Your task to perform on an android device: Go to network settings Image 0: 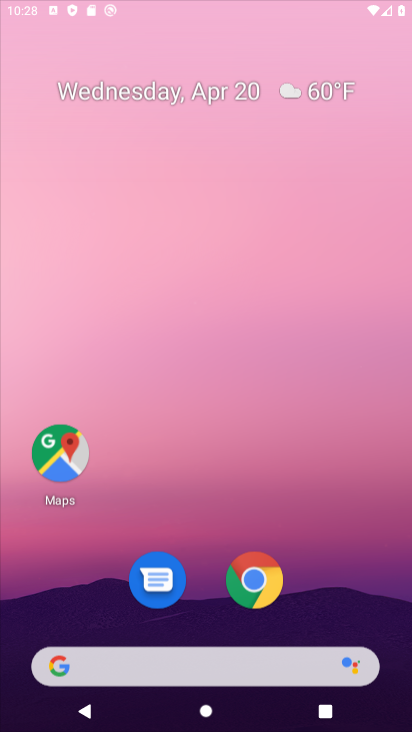
Step 0: drag from (246, 661) to (257, 125)
Your task to perform on an android device: Go to network settings Image 1: 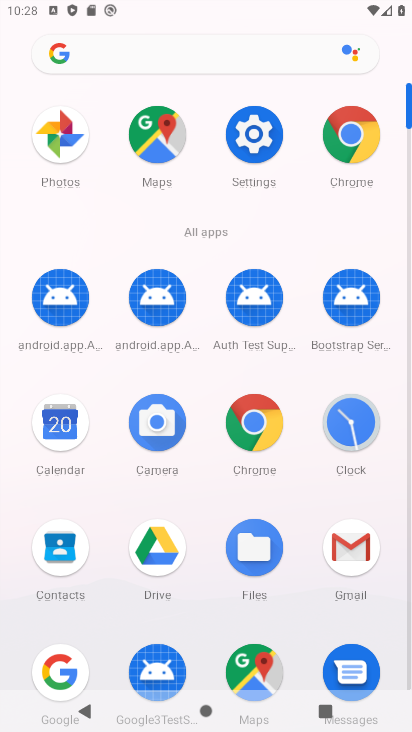
Step 1: click (257, 149)
Your task to perform on an android device: Go to network settings Image 2: 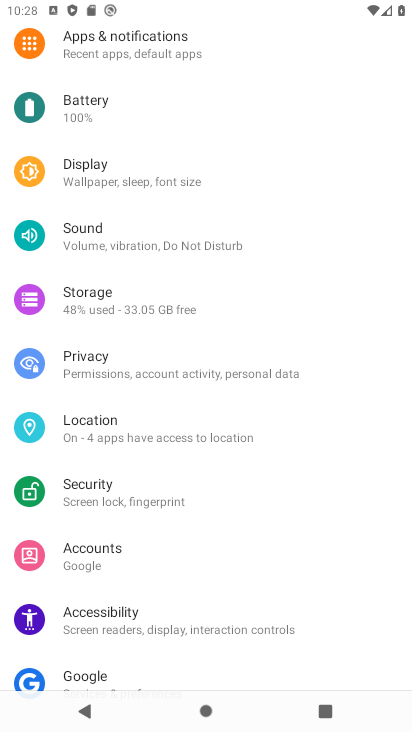
Step 2: drag from (165, 83) to (139, 491)
Your task to perform on an android device: Go to network settings Image 3: 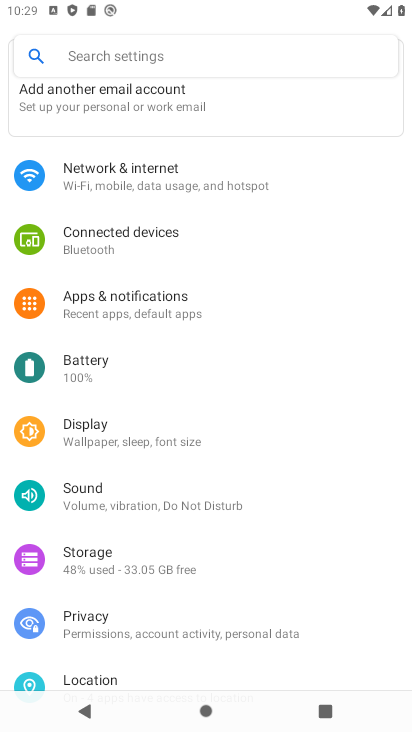
Step 3: click (142, 185)
Your task to perform on an android device: Go to network settings Image 4: 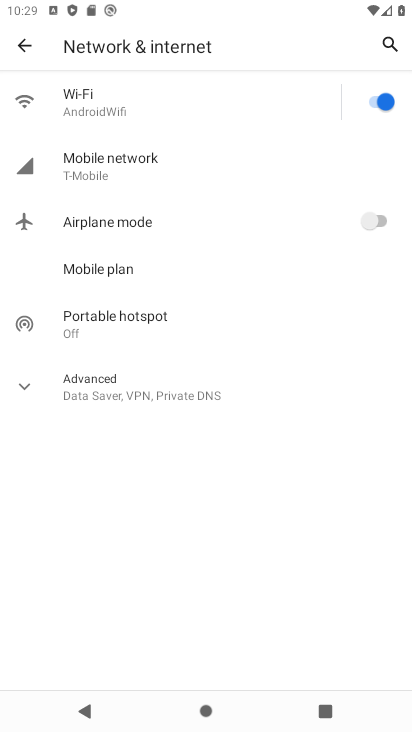
Step 4: task complete